Your task to perform on an android device: Go to Maps Image 0: 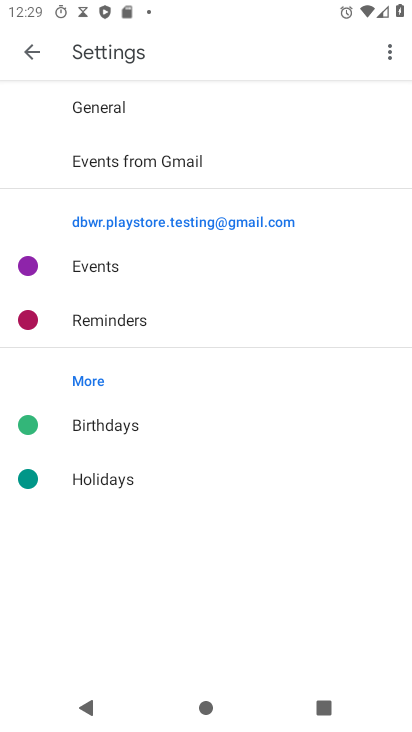
Step 0: press home button
Your task to perform on an android device: Go to Maps Image 1: 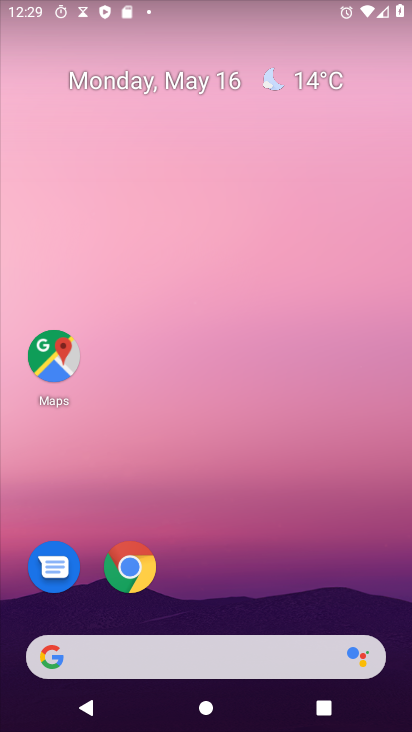
Step 1: drag from (242, 612) to (260, 26)
Your task to perform on an android device: Go to Maps Image 2: 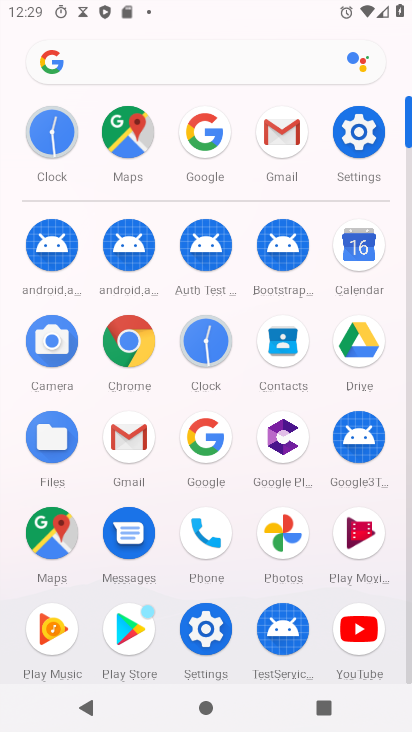
Step 2: click (31, 520)
Your task to perform on an android device: Go to Maps Image 3: 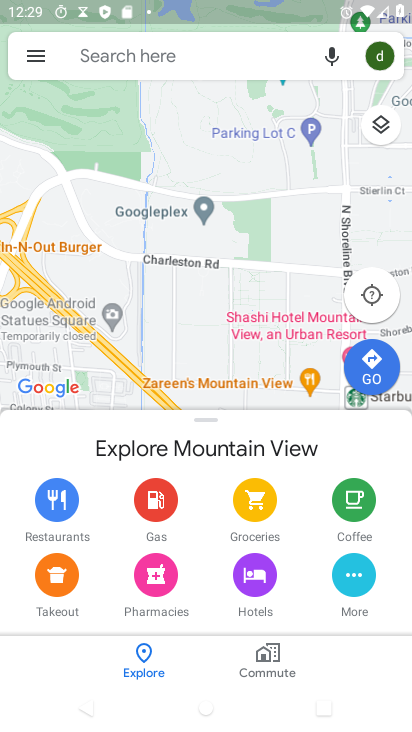
Step 3: task complete